Your task to perform on an android device: change notification settings in the gmail app Image 0: 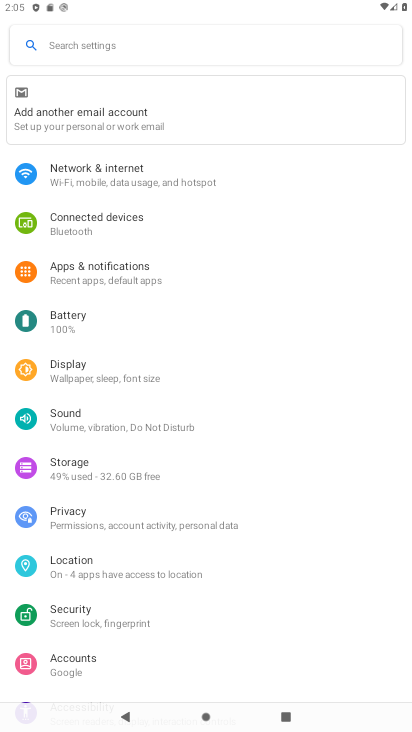
Step 0: press back button
Your task to perform on an android device: change notification settings in the gmail app Image 1: 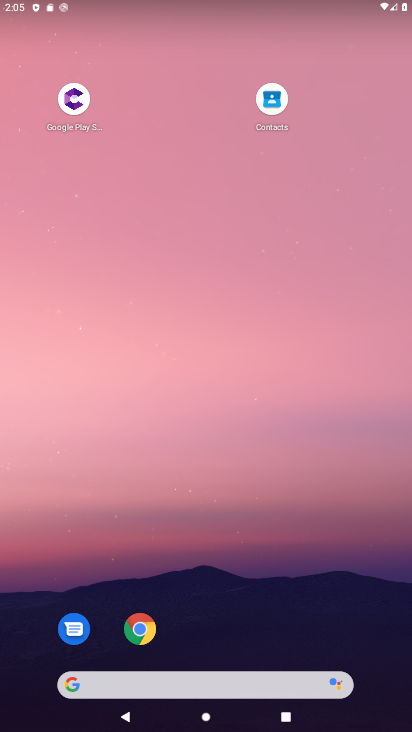
Step 1: drag from (142, 330) to (100, 43)
Your task to perform on an android device: change notification settings in the gmail app Image 2: 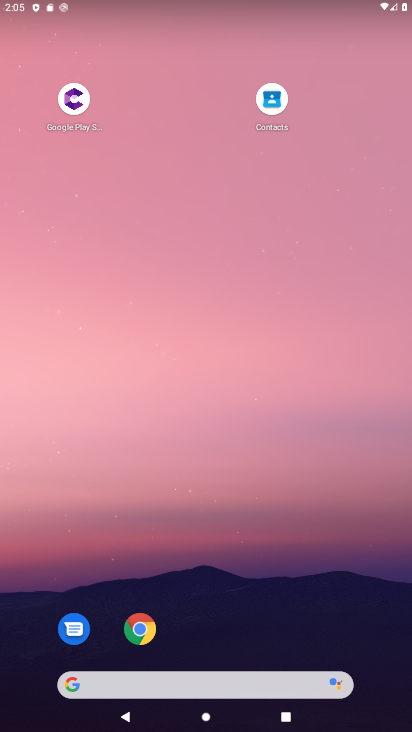
Step 2: click (290, 139)
Your task to perform on an android device: change notification settings in the gmail app Image 3: 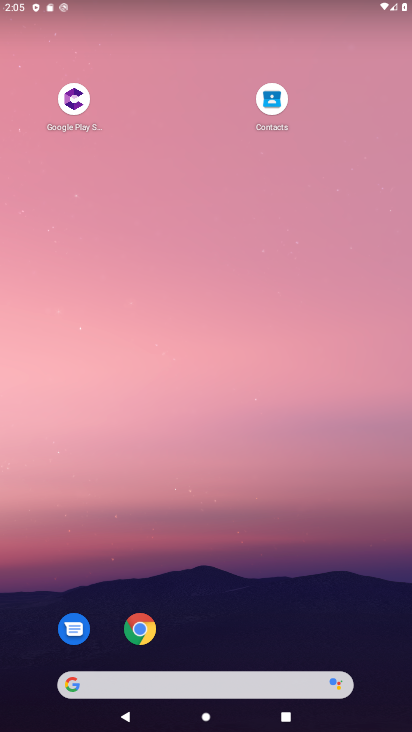
Step 3: drag from (250, 426) to (218, 12)
Your task to perform on an android device: change notification settings in the gmail app Image 4: 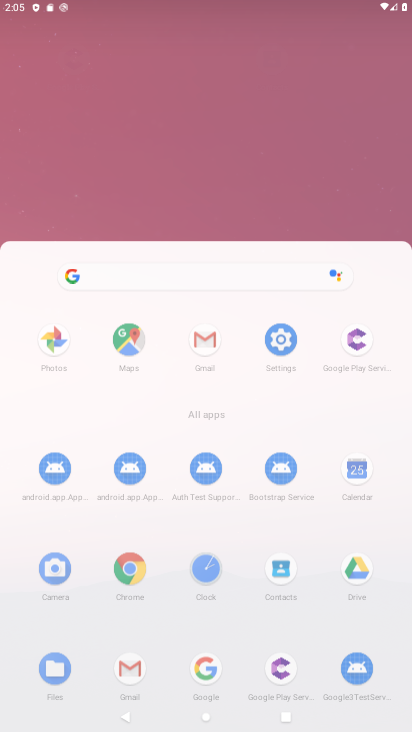
Step 4: drag from (285, 312) to (285, 203)
Your task to perform on an android device: change notification settings in the gmail app Image 5: 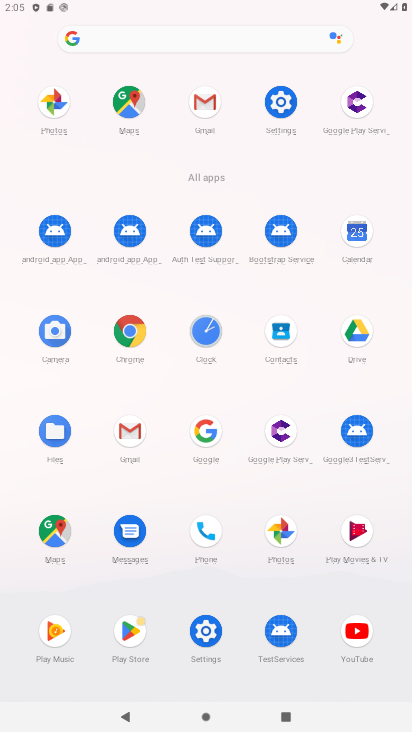
Step 5: click (129, 430)
Your task to perform on an android device: change notification settings in the gmail app Image 6: 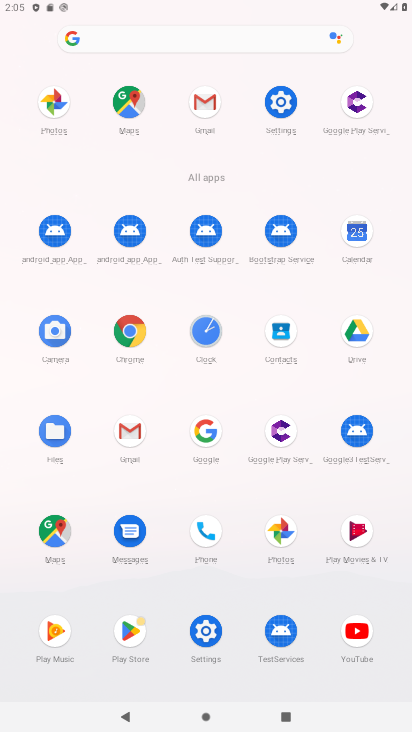
Step 6: click (129, 431)
Your task to perform on an android device: change notification settings in the gmail app Image 7: 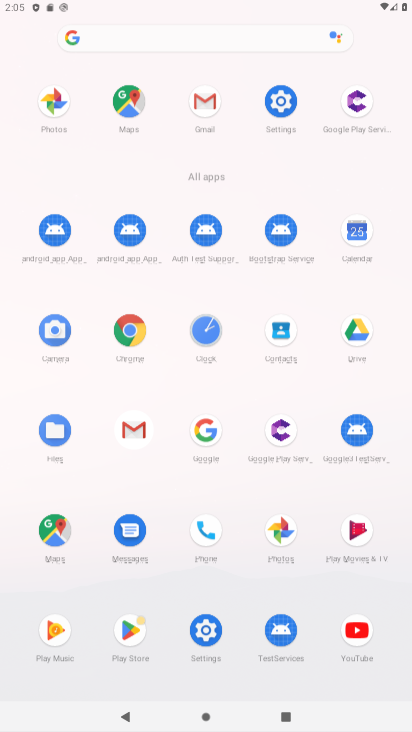
Step 7: click (132, 434)
Your task to perform on an android device: change notification settings in the gmail app Image 8: 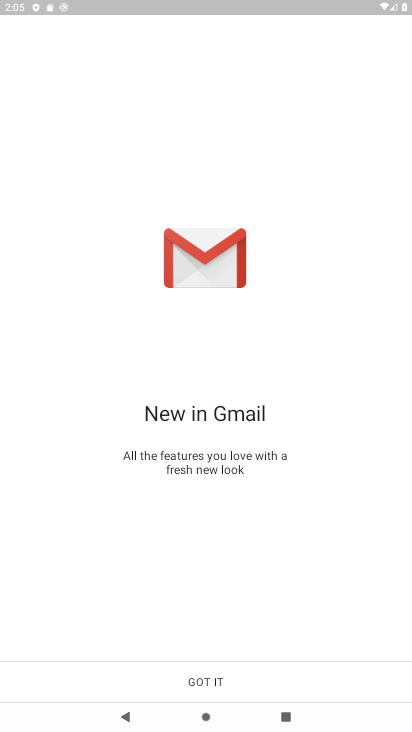
Step 8: click (131, 433)
Your task to perform on an android device: change notification settings in the gmail app Image 9: 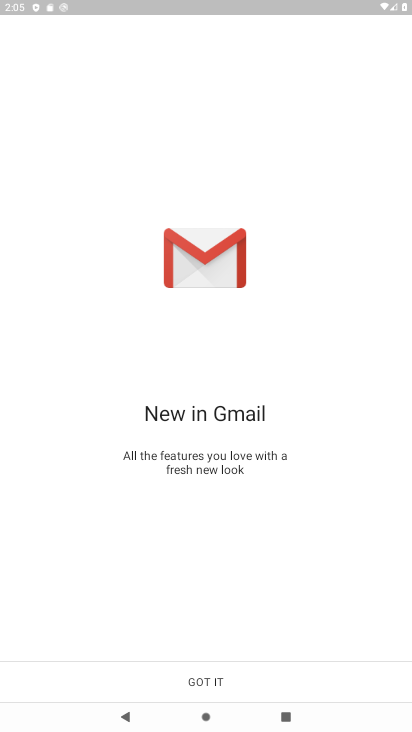
Step 9: click (128, 431)
Your task to perform on an android device: change notification settings in the gmail app Image 10: 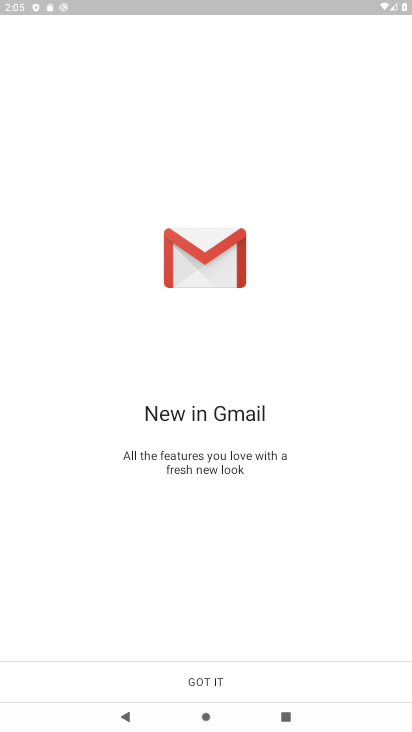
Step 10: click (125, 427)
Your task to perform on an android device: change notification settings in the gmail app Image 11: 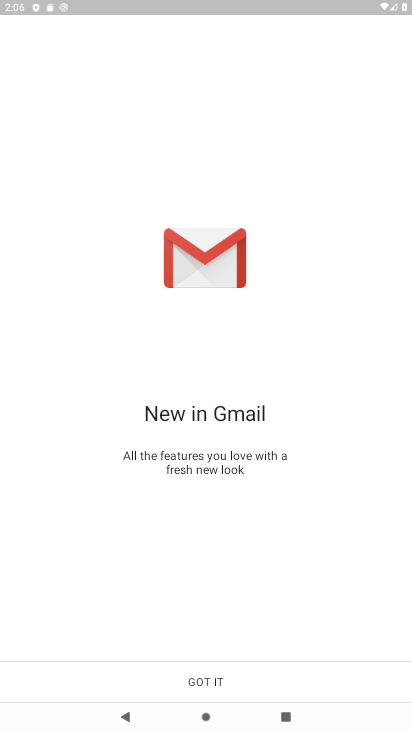
Step 11: click (200, 672)
Your task to perform on an android device: change notification settings in the gmail app Image 12: 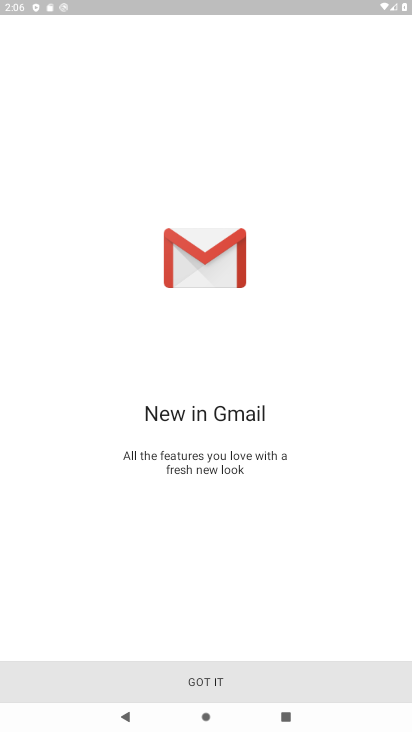
Step 12: click (200, 675)
Your task to perform on an android device: change notification settings in the gmail app Image 13: 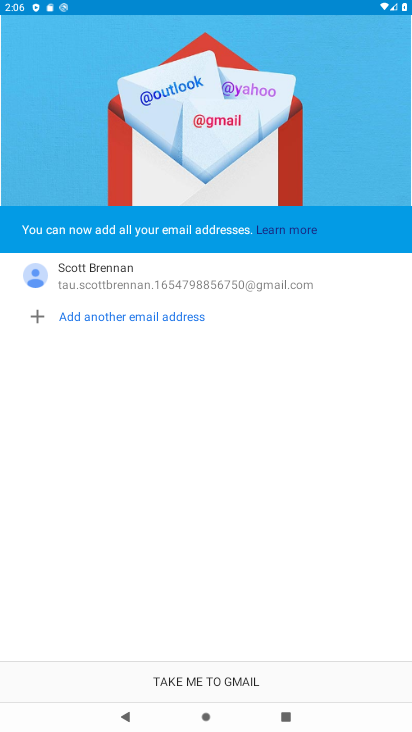
Step 13: click (201, 680)
Your task to perform on an android device: change notification settings in the gmail app Image 14: 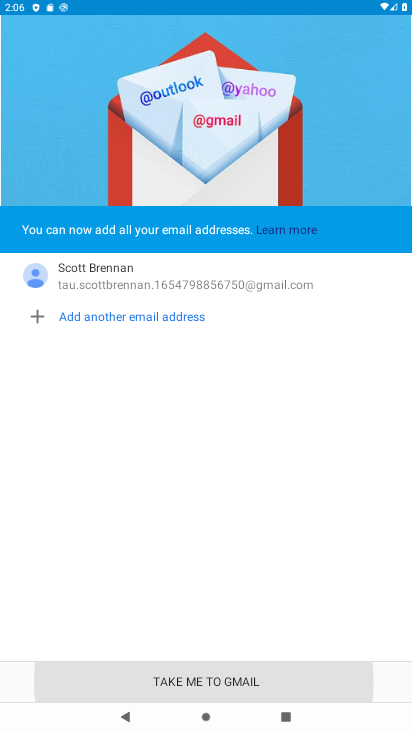
Step 14: click (201, 680)
Your task to perform on an android device: change notification settings in the gmail app Image 15: 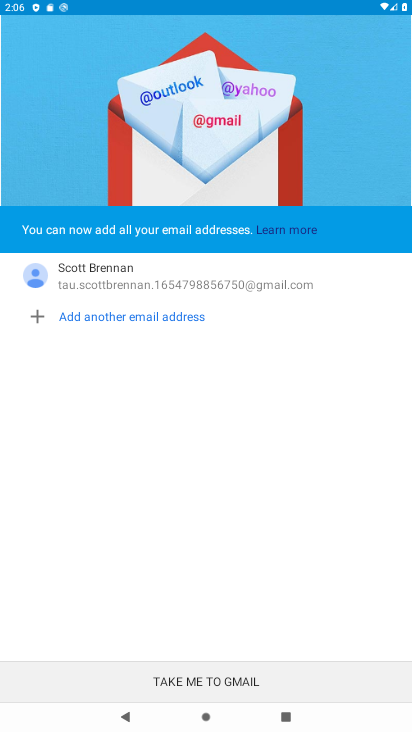
Step 15: click (201, 680)
Your task to perform on an android device: change notification settings in the gmail app Image 16: 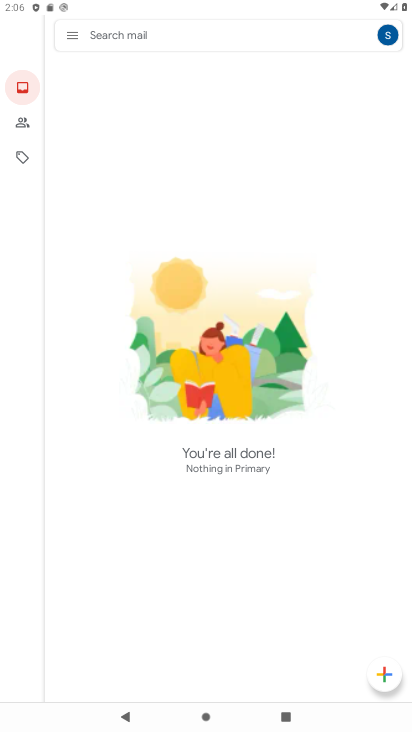
Step 16: click (64, 41)
Your task to perform on an android device: change notification settings in the gmail app Image 17: 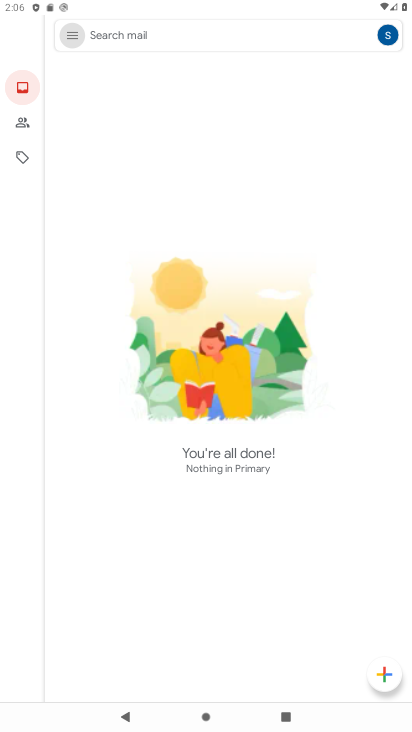
Step 17: click (64, 42)
Your task to perform on an android device: change notification settings in the gmail app Image 18: 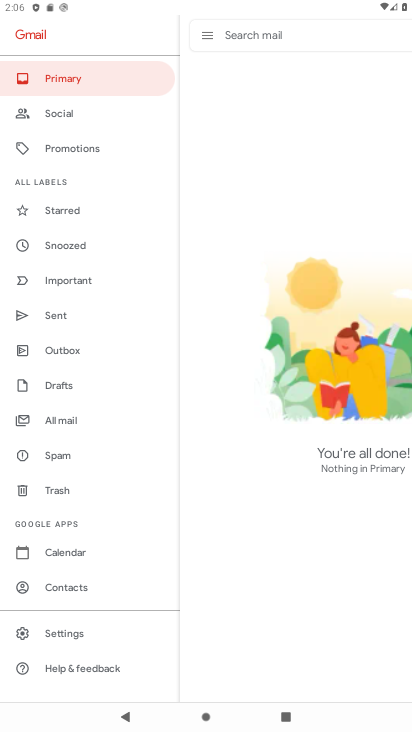
Step 18: click (64, 41)
Your task to perform on an android device: change notification settings in the gmail app Image 19: 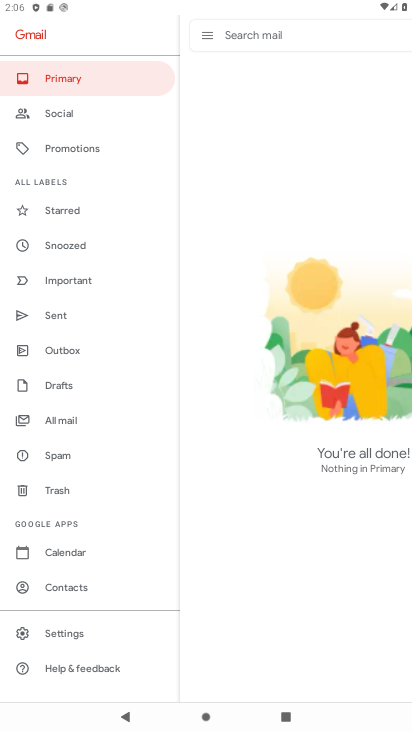
Step 19: click (214, 126)
Your task to perform on an android device: change notification settings in the gmail app Image 20: 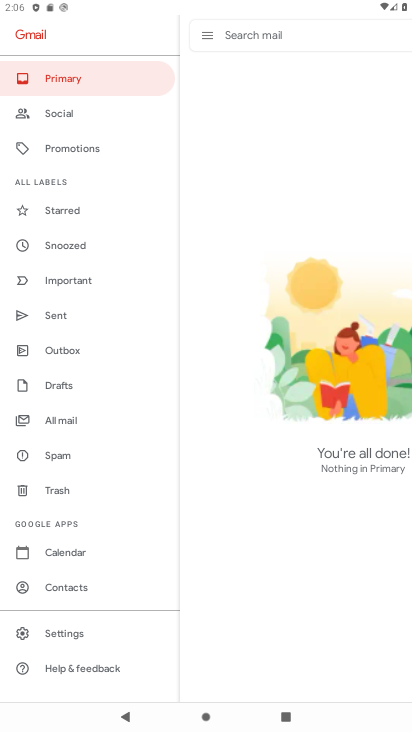
Step 20: click (64, 635)
Your task to perform on an android device: change notification settings in the gmail app Image 21: 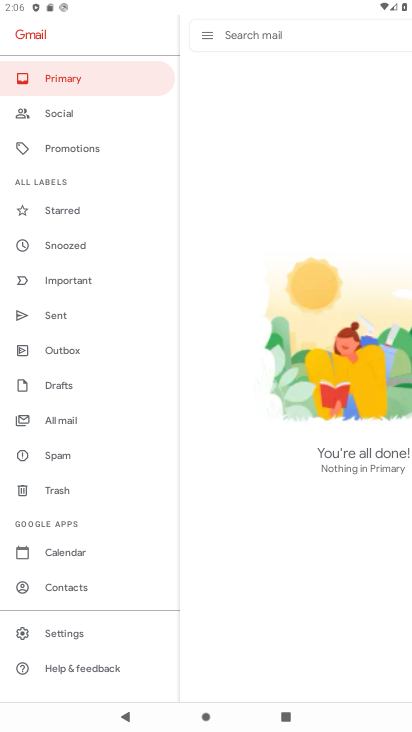
Step 21: click (64, 635)
Your task to perform on an android device: change notification settings in the gmail app Image 22: 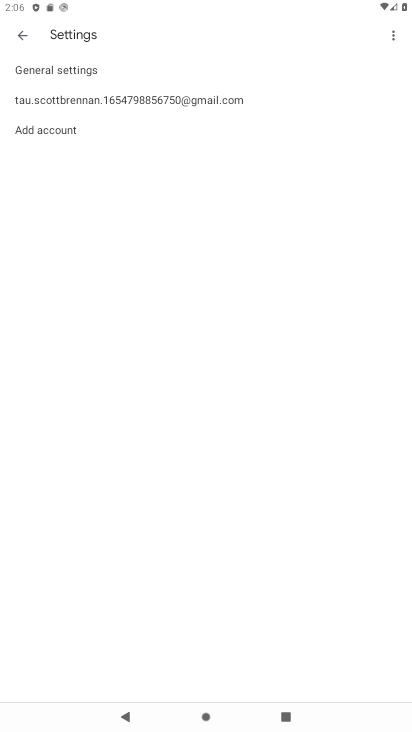
Step 22: click (56, 95)
Your task to perform on an android device: change notification settings in the gmail app Image 23: 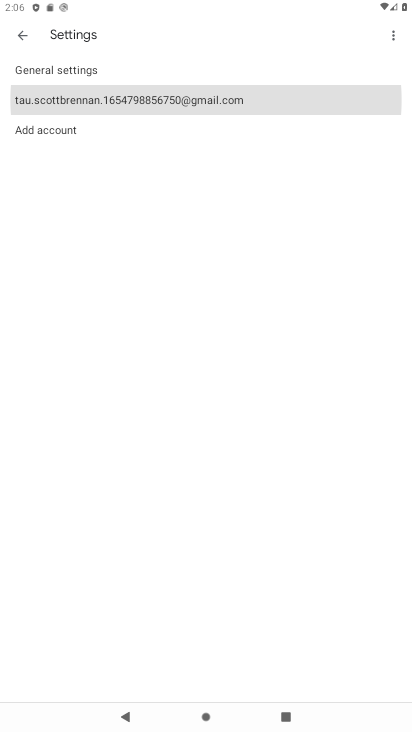
Step 23: click (56, 95)
Your task to perform on an android device: change notification settings in the gmail app Image 24: 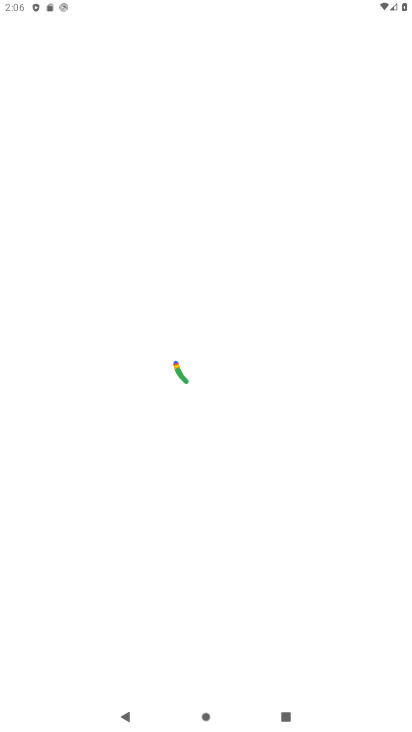
Step 24: press back button
Your task to perform on an android device: change notification settings in the gmail app Image 25: 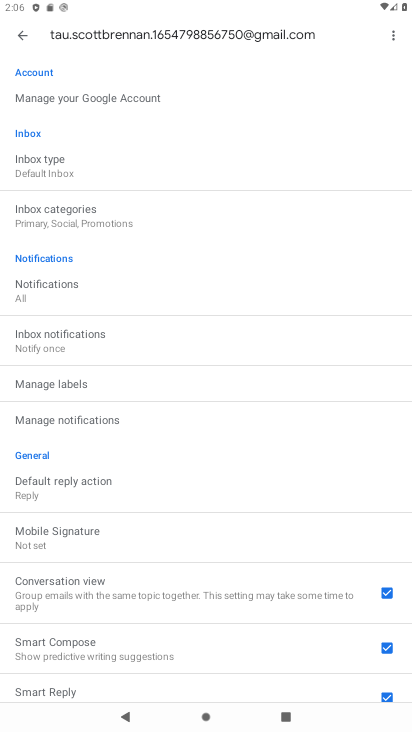
Step 25: click (38, 287)
Your task to perform on an android device: change notification settings in the gmail app Image 26: 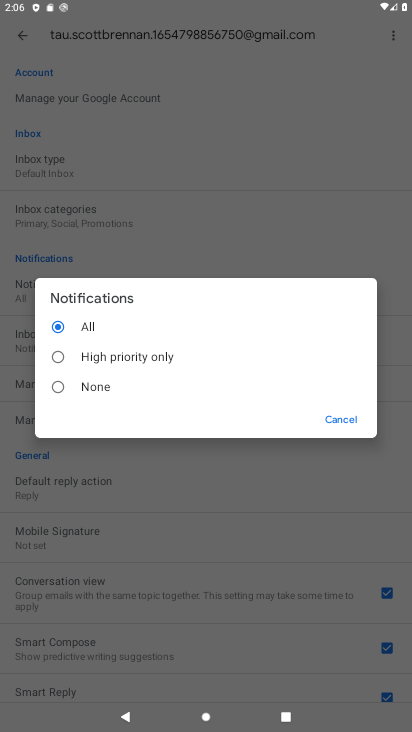
Step 26: click (59, 361)
Your task to perform on an android device: change notification settings in the gmail app Image 27: 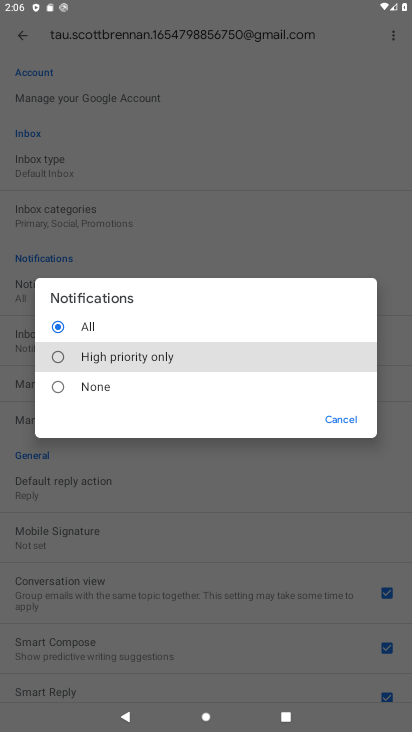
Step 27: click (62, 360)
Your task to perform on an android device: change notification settings in the gmail app Image 28: 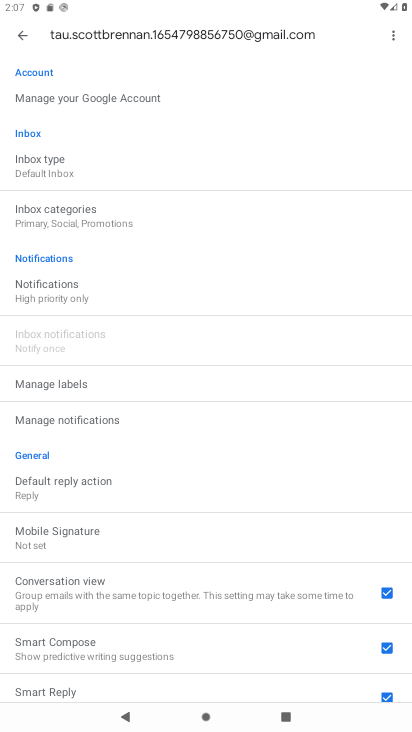
Step 28: task complete